Your task to perform on an android device: Search for "acer predator" on bestbuy.com, select the first entry, add it to the cart, then select checkout. Image 0: 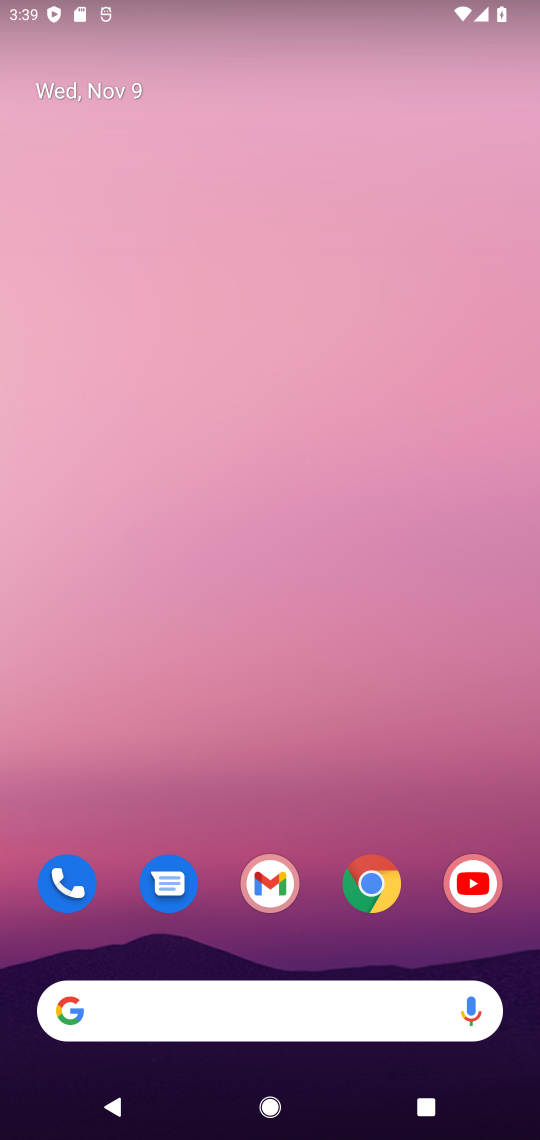
Step 0: click (356, 888)
Your task to perform on an android device: Search for "acer predator" on bestbuy.com, select the first entry, add it to the cart, then select checkout. Image 1: 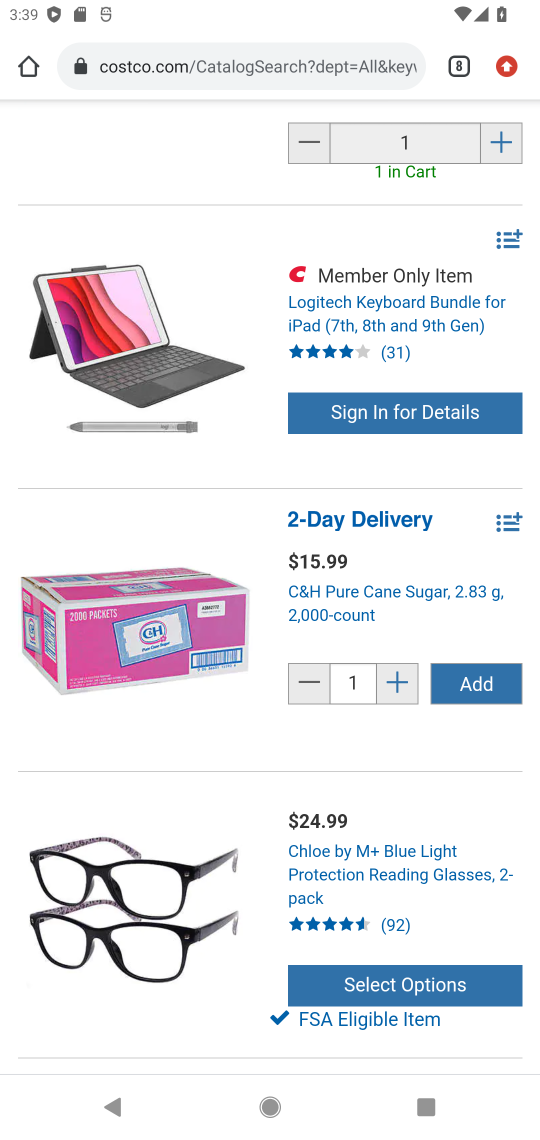
Step 1: press home button
Your task to perform on an android device: Search for "acer predator" on bestbuy.com, select the first entry, add it to the cart, then select checkout. Image 2: 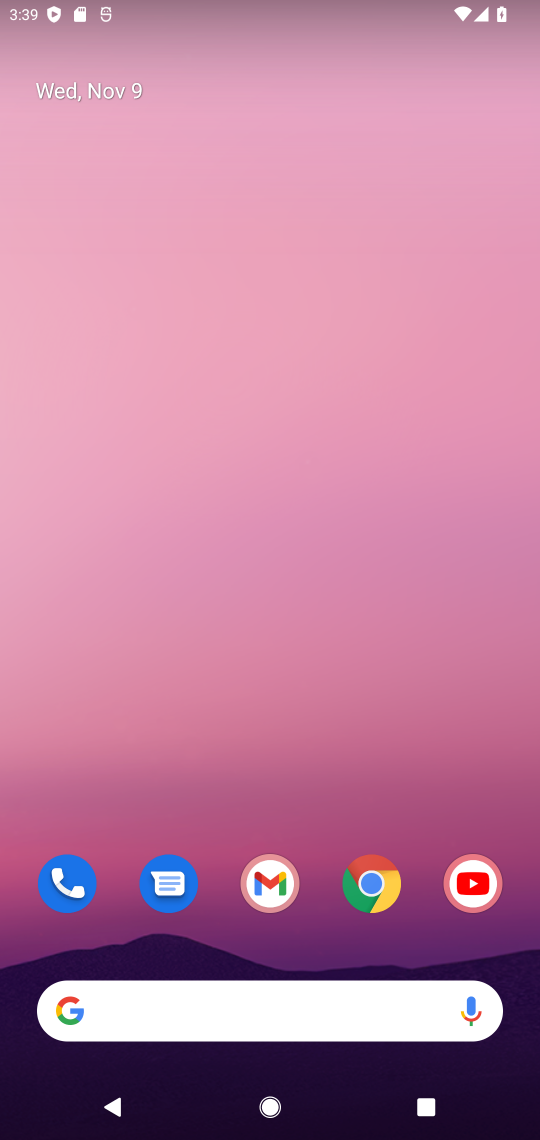
Step 2: click (360, 875)
Your task to perform on an android device: Search for "acer predator" on bestbuy.com, select the first entry, add it to the cart, then select checkout. Image 3: 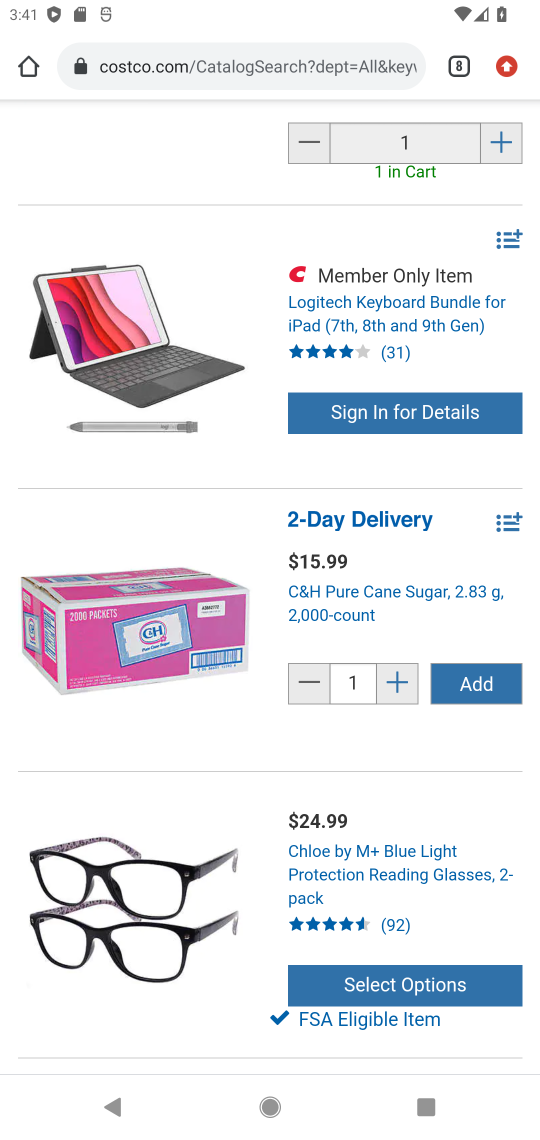
Step 3: click (456, 63)
Your task to perform on an android device: Search for "acer predator" on bestbuy.com, select the first entry, add it to the cart, then select checkout. Image 4: 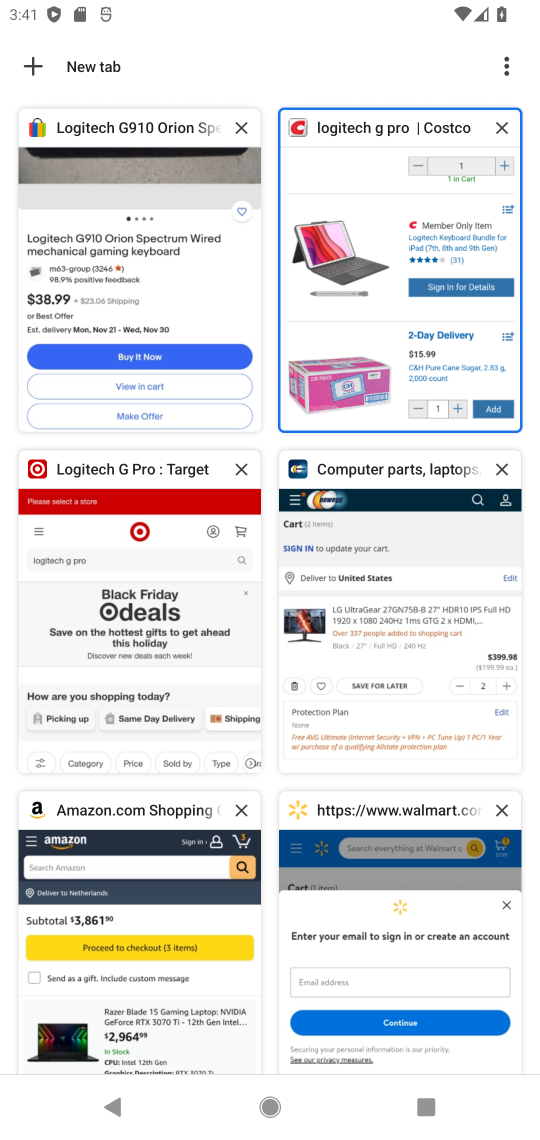
Step 4: click (34, 78)
Your task to perform on an android device: Search for "acer predator" on bestbuy.com, select the first entry, add it to the cart, then select checkout. Image 5: 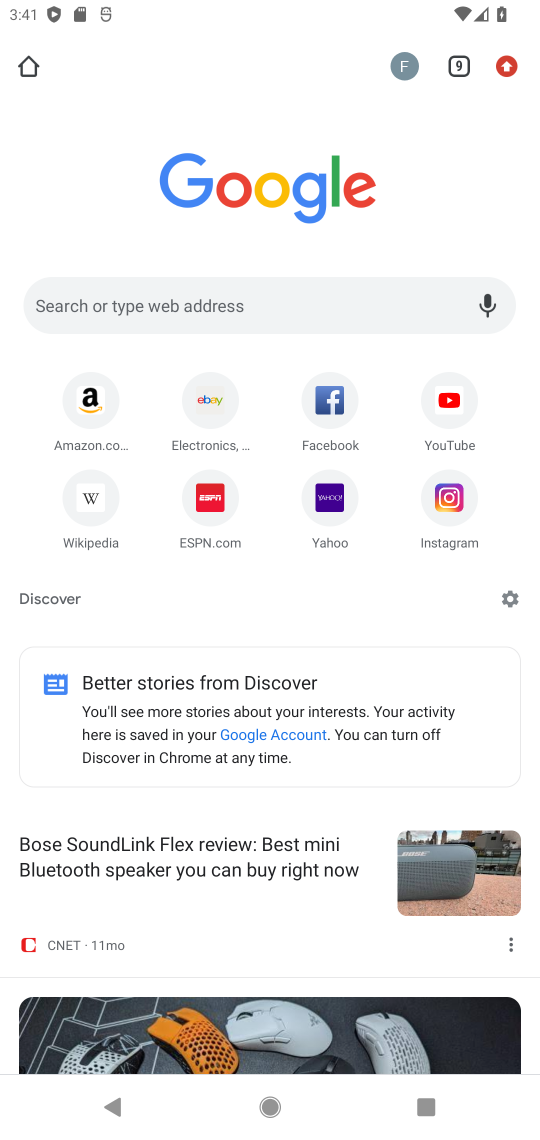
Step 5: click (194, 308)
Your task to perform on an android device: Search for "acer predator" on bestbuy.com, select the first entry, add it to the cart, then select checkout. Image 6: 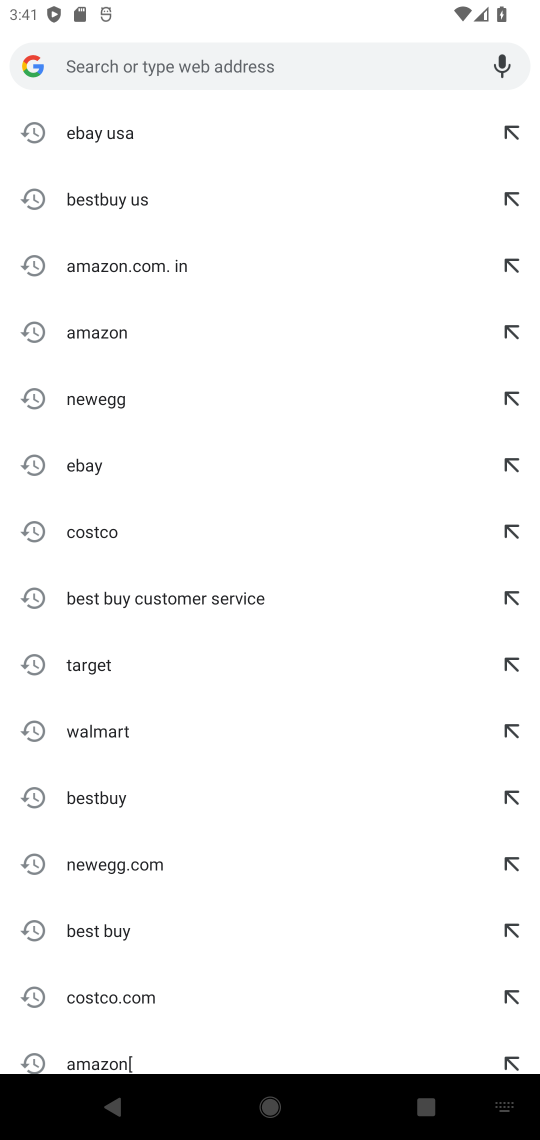
Step 6: click (100, 798)
Your task to perform on an android device: Search for "acer predator" on bestbuy.com, select the first entry, add it to the cart, then select checkout. Image 7: 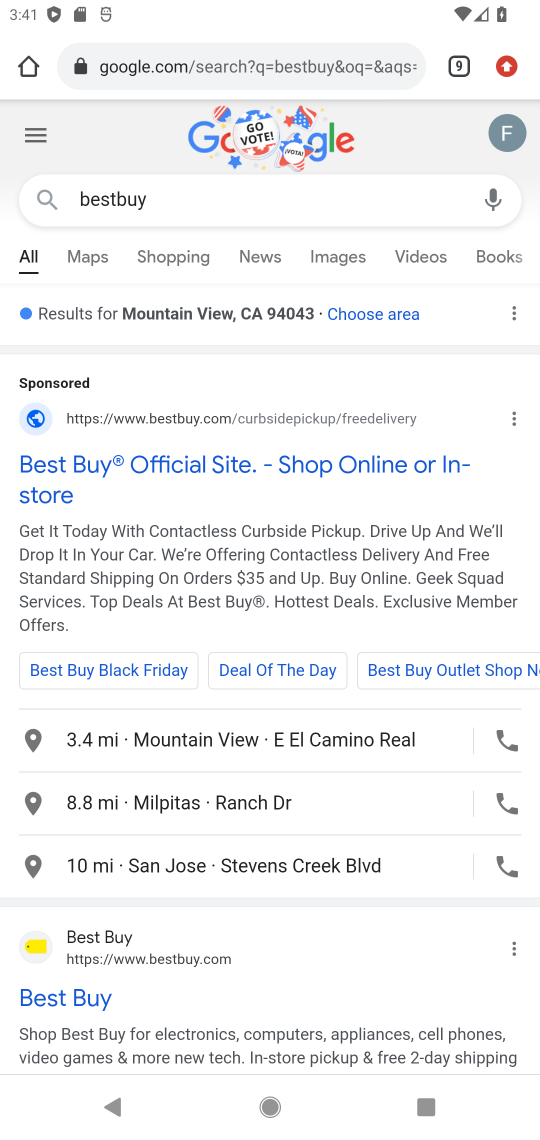
Step 7: drag from (362, 1039) to (332, 297)
Your task to perform on an android device: Search for "acer predator" on bestbuy.com, select the first entry, add it to the cart, then select checkout. Image 8: 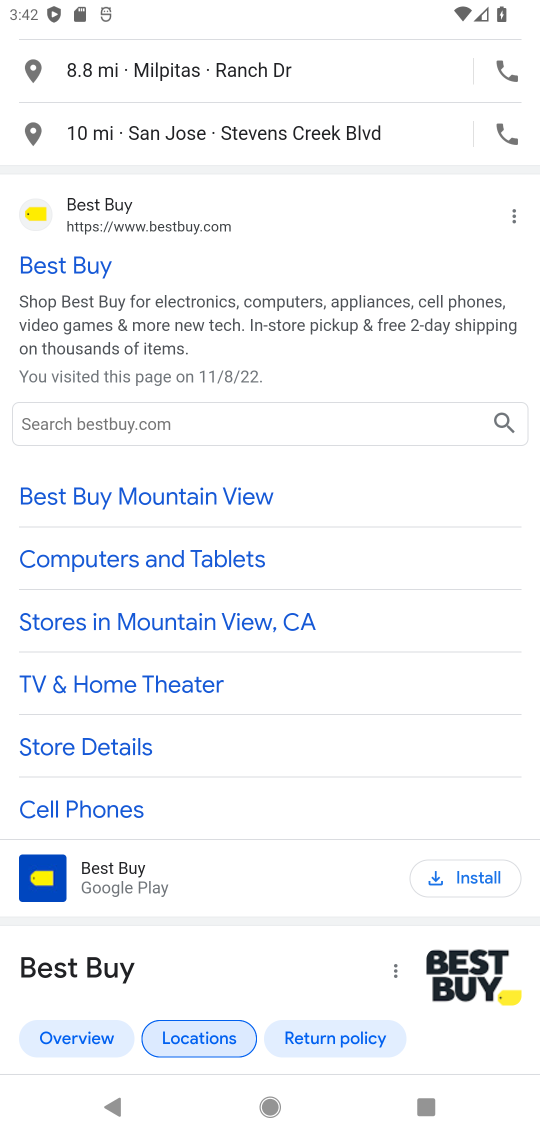
Step 8: click (75, 419)
Your task to perform on an android device: Search for "acer predator" on bestbuy.com, select the first entry, add it to the cart, then select checkout. Image 9: 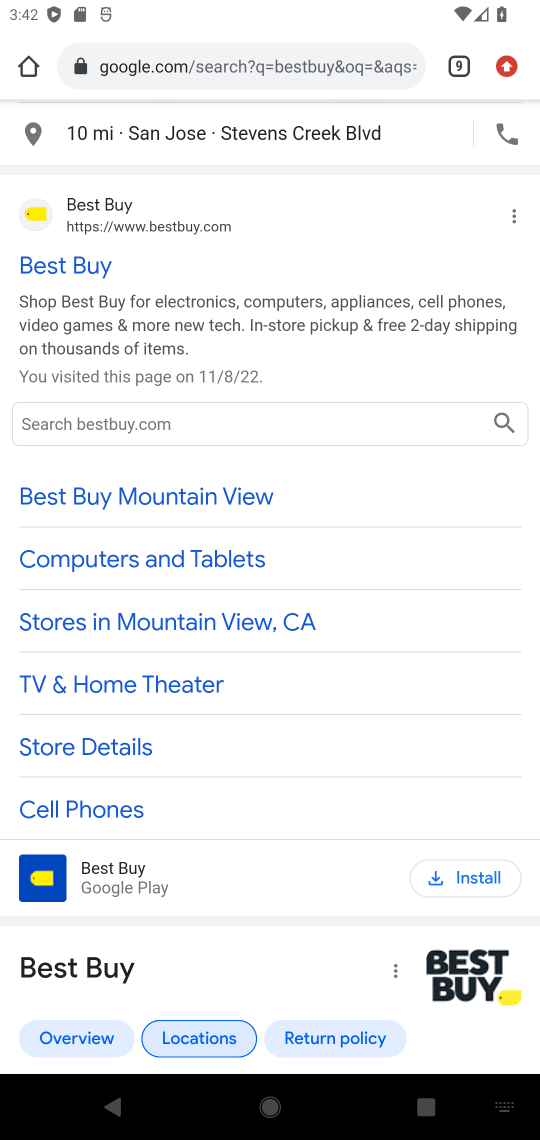
Step 9: type "acer predator"
Your task to perform on an android device: Search for "acer predator" on bestbuy.com, select the first entry, add it to the cart, then select checkout. Image 10: 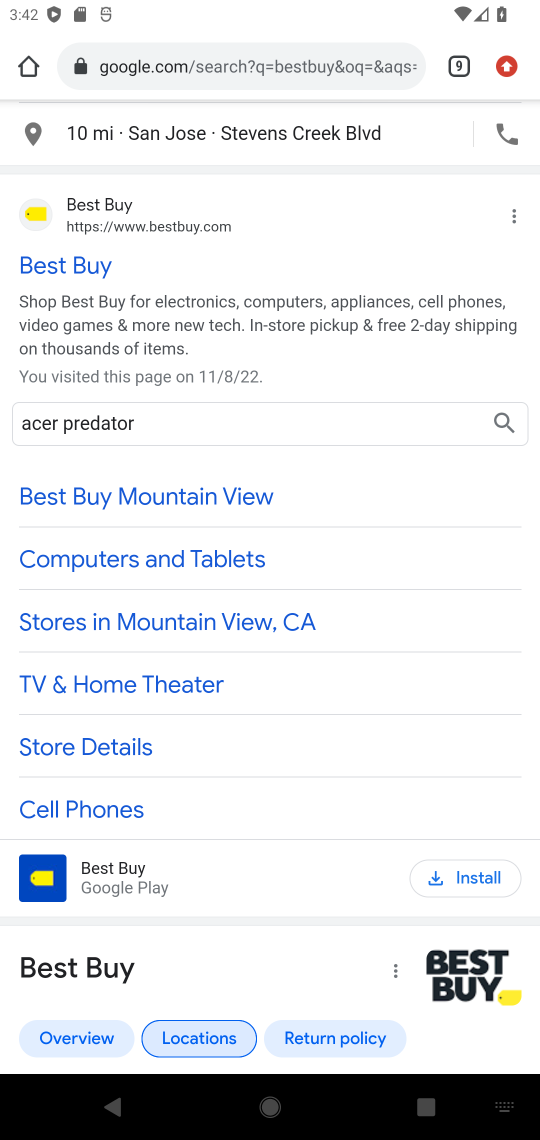
Step 10: click (505, 412)
Your task to perform on an android device: Search for "acer predator" on bestbuy.com, select the first entry, add it to the cart, then select checkout. Image 11: 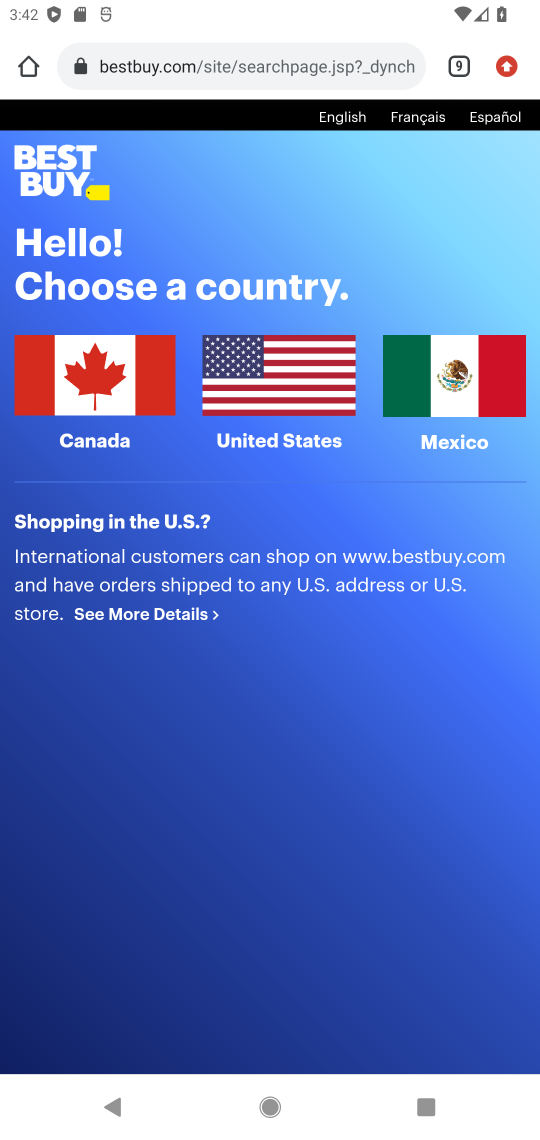
Step 11: click (260, 389)
Your task to perform on an android device: Search for "acer predator" on bestbuy.com, select the first entry, add it to the cart, then select checkout. Image 12: 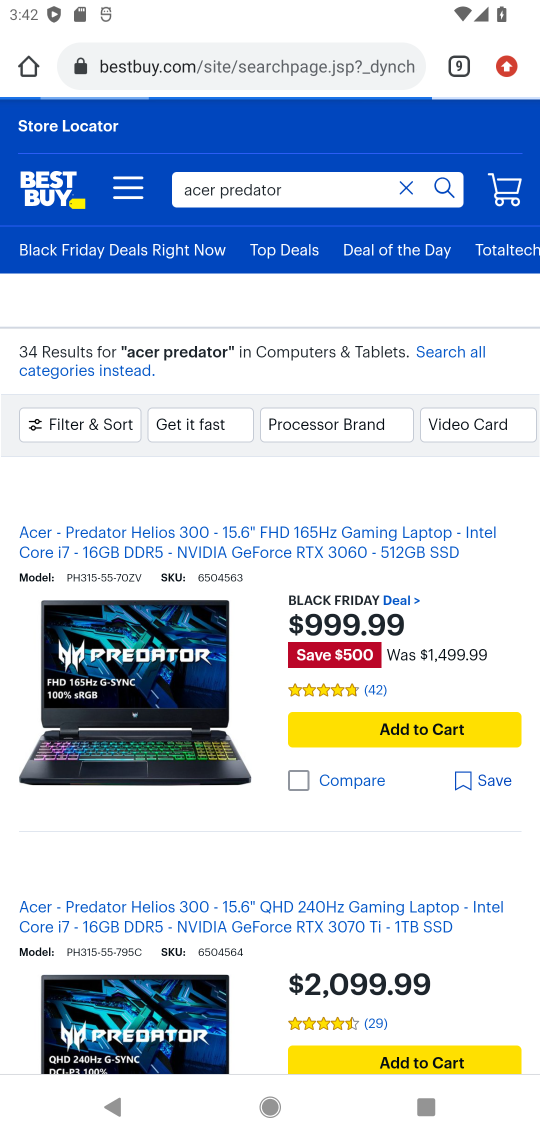
Step 12: click (417, 696)
Your task to perform on an android device: Search for "acer predator" on bestbuy.com, select the first entry, add it to the cart, then select checkout. Image 13: 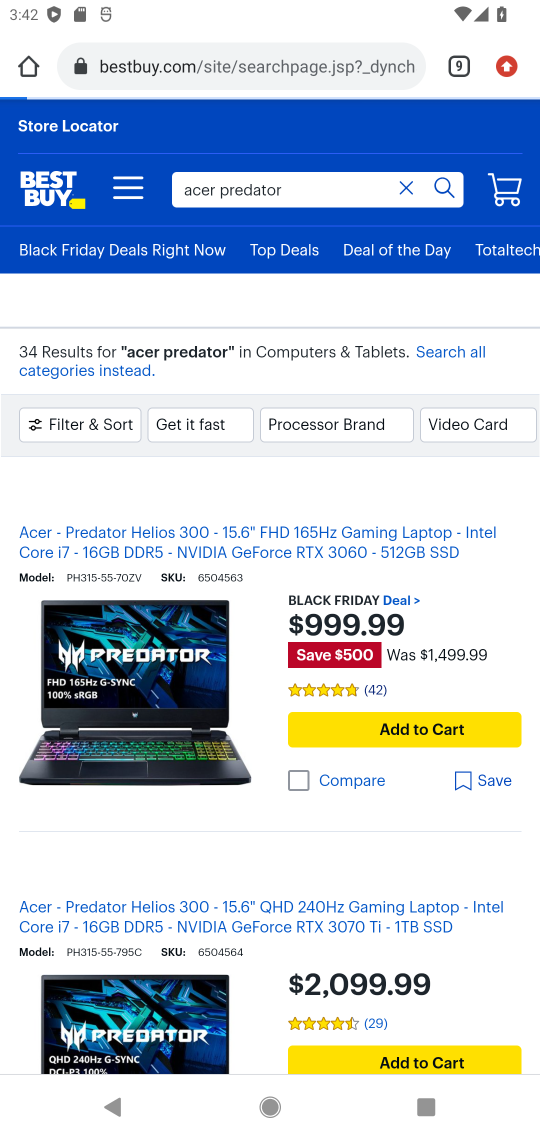
Step 13: click (412, 761)
Your task to perform on an android device: Search for "acer predator" on bestbuy.com, select the first entry, add it to the cart, then select checkout. Image 14: 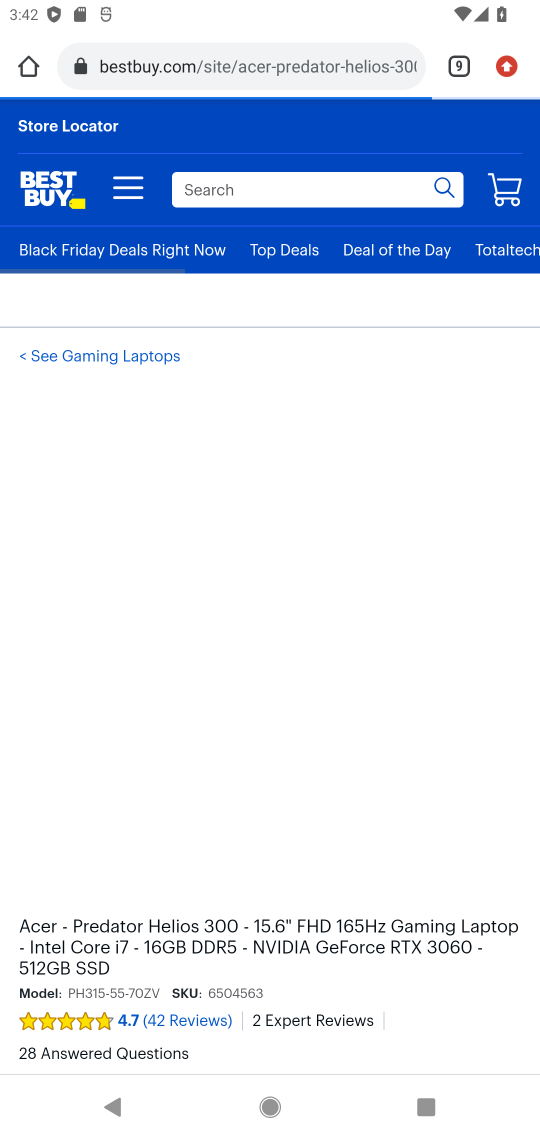
Step 14: click (426, 732)
Your task to perform on an android device: Search for "acer predator" on bestbuy.com, select the first entry, add it to the cart, then select checkout. Image 15: 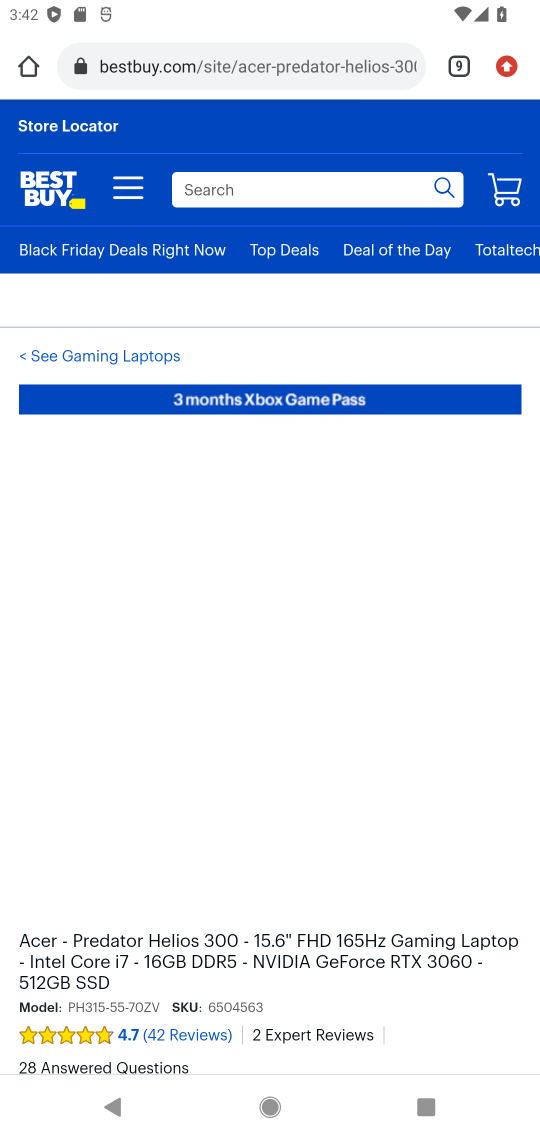
Step 15: drag from (333, 972) to (415, 423)
Your task to perform on an android device: Search for "acer predator" on bestbuy.com, select the first entry, add it to the cart, then select checkout. Image 16: 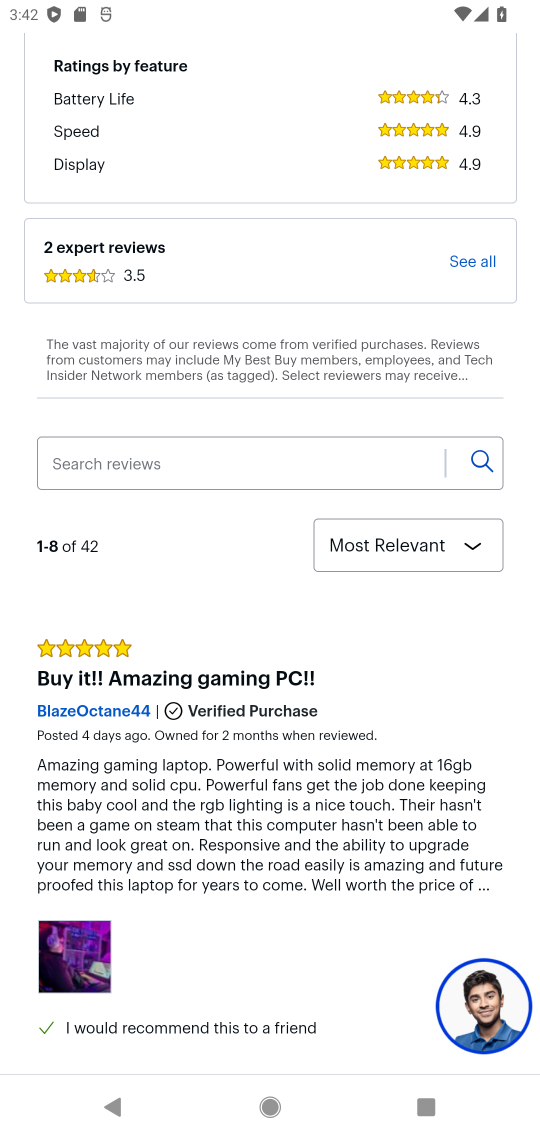
Step 16: drag from (328, 224) to (253, 698)
Your task to perform on an android device: Search for "acer predator" on bestbuy.com, select the first entry, add it to the cart, then select checkout. Image 17: 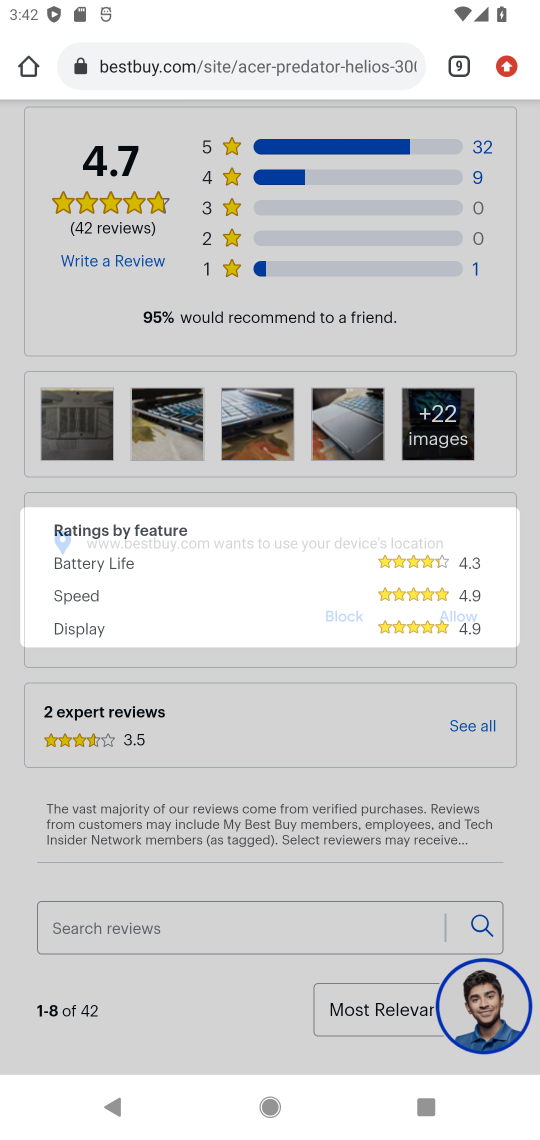
Step 17: drag from (370, 350) to (282, 760)
Your task to perform on an android device: Search for "acer predator" on bestbuy.com, select the first entry, add it to the cart, then select checkout. Image 18: 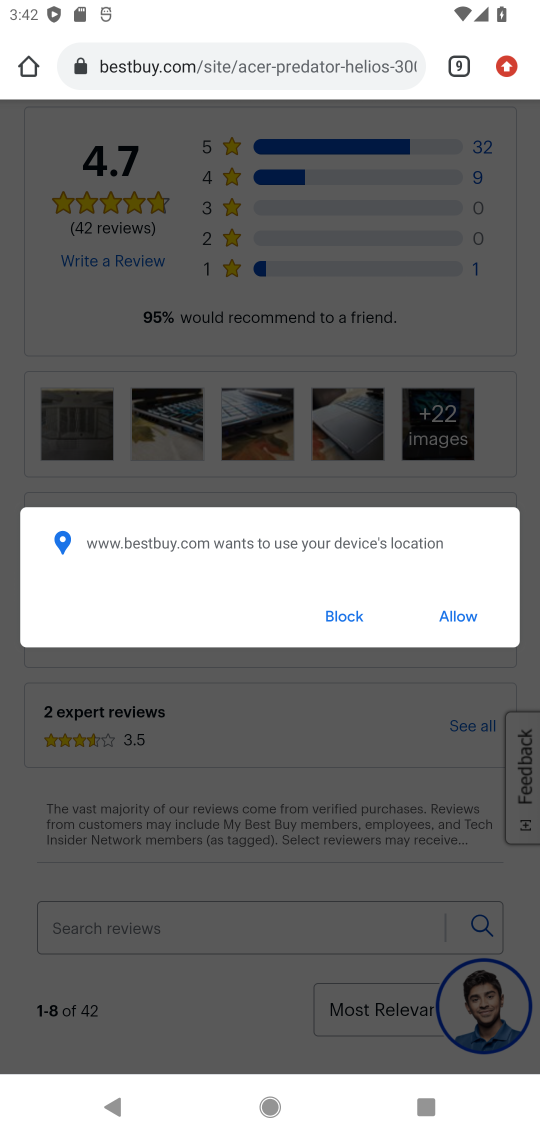
Step 18: click (340, 622)
Your task to perform on an android device: Search for "acer predator" on bestbuy.com, select the first entry, add it to the cart, then select checkout. Image 19: 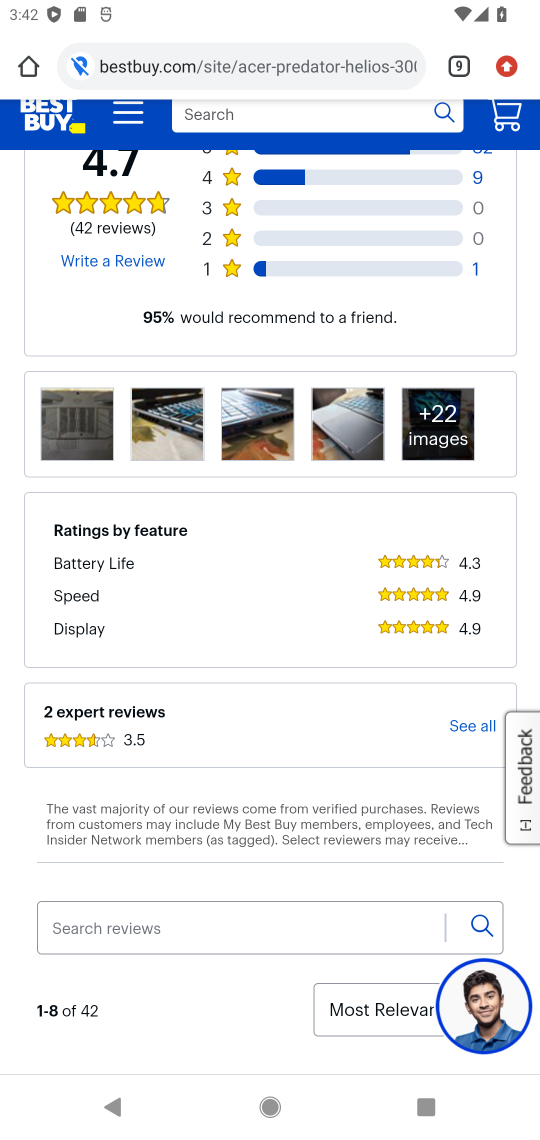
Step 19: press back button
Your task to perform on an android device: Search for "acer predator" on bestbuy.com, select the first entry, add it to the cart, then select checkout. Image 20: 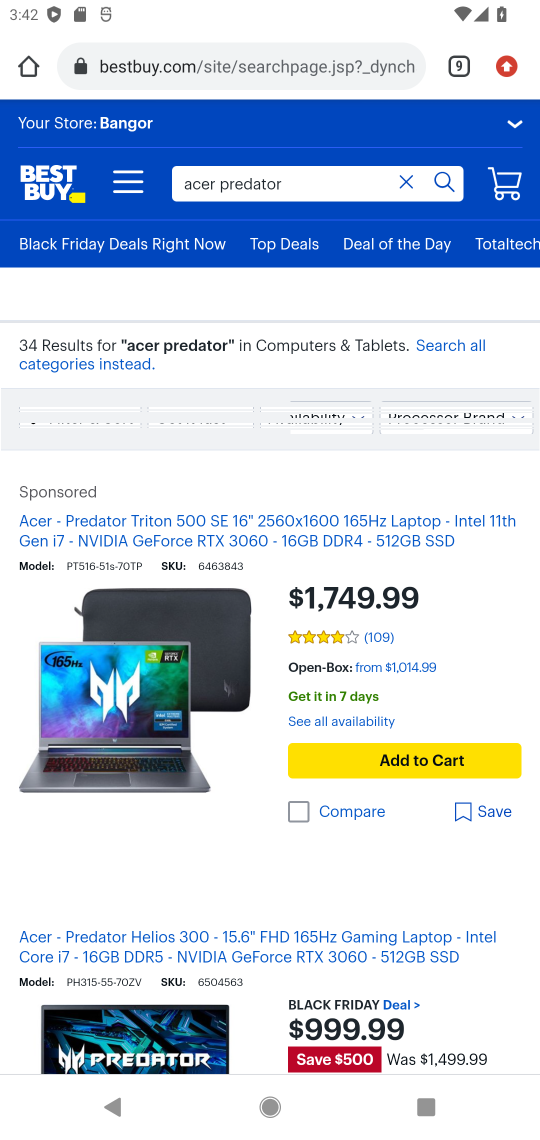
Step 20: click (377, 771)
Your task to perform on an android device: Search for "acer predator" on bestbuy.com, select the first entry, add it to the cart, then select checkout. Image 21: 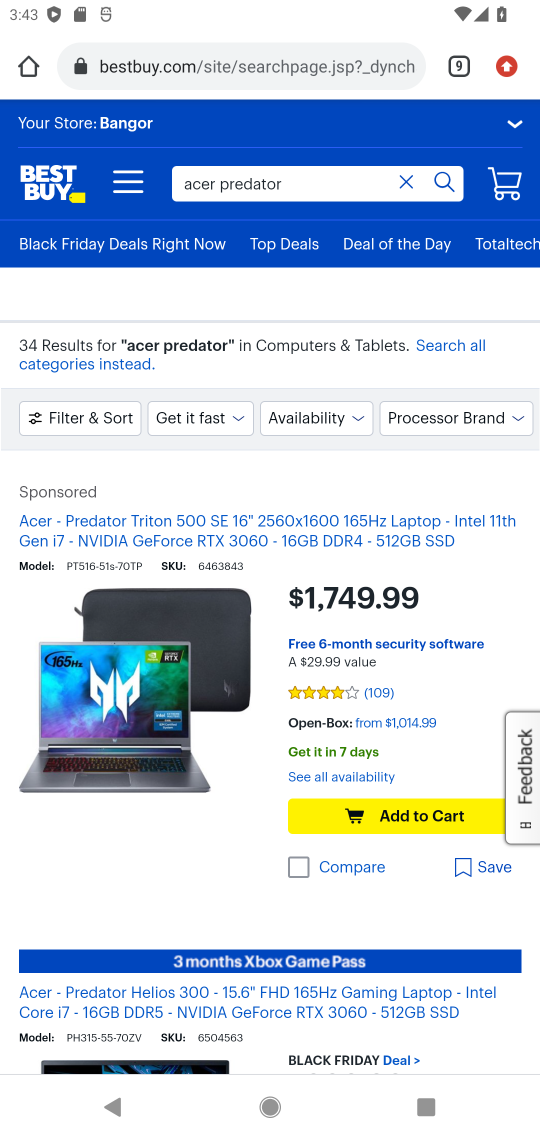
Step 21: click (381, 806)
Your task to perform on an android device: Search for "acer predator" on bestbuy.com, select the first entry, add it to the cart, then select checkout. Image 22: 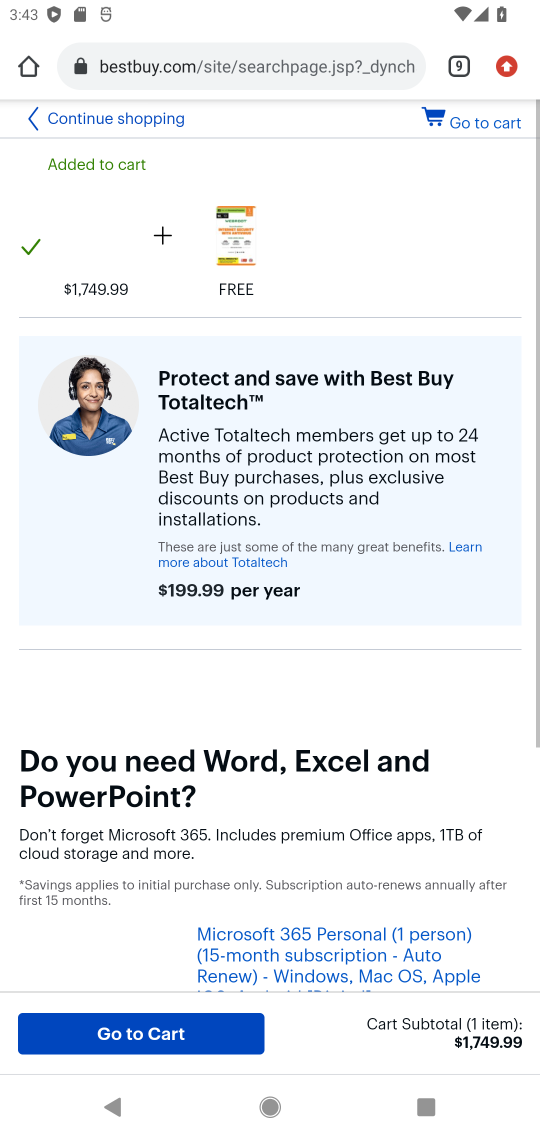
Step 22: click (161, 1033)
Your task to perform on an android device: Search for "acer predator" on bestbuy.com, select the first entry, add it to the cart, then select checkout. Image 23: 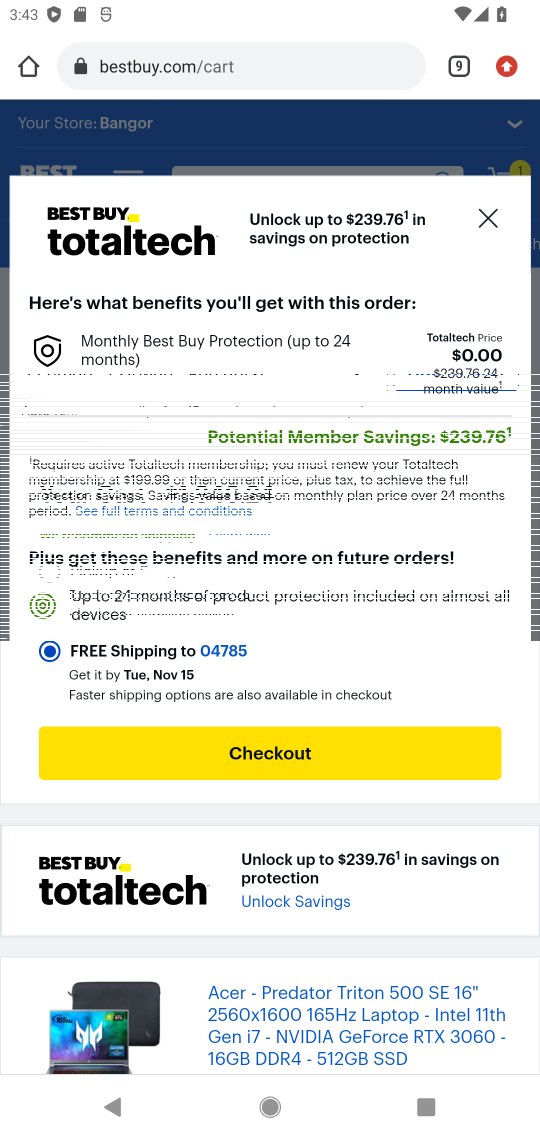
Step 23: click (491, 218)
Your task to perform on an android device: Search for "acer predator" on bestbuy.com, select the first entry, add it to the cart, then select checkout. Image 24: 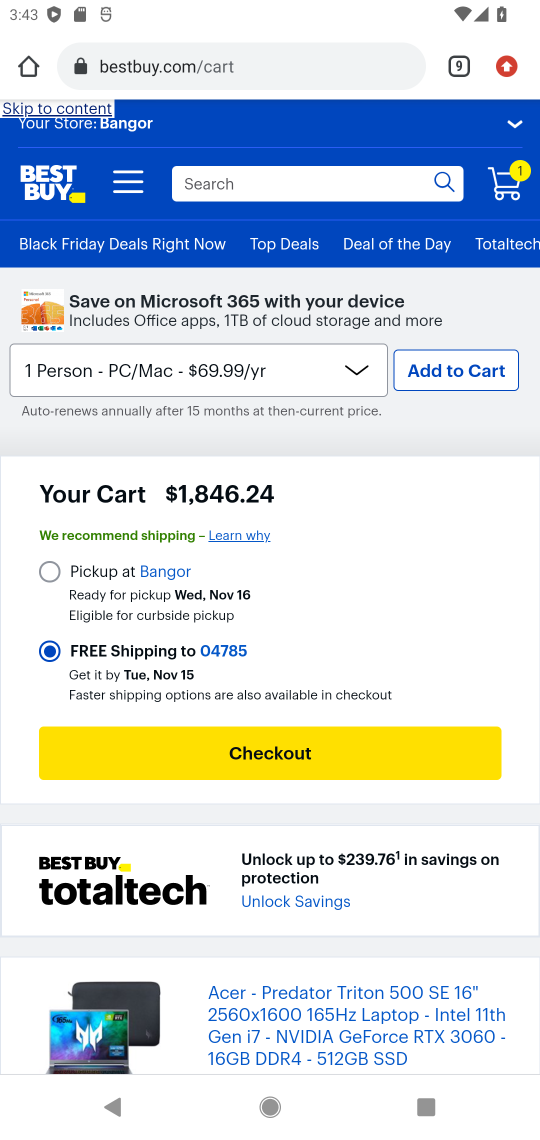
Step 24: click (267, 745)
Your task to perform on an android device: Search for "acer predator" on bestbuy.com, select the first entry, add it to the cart, then select checkout. Image 25: 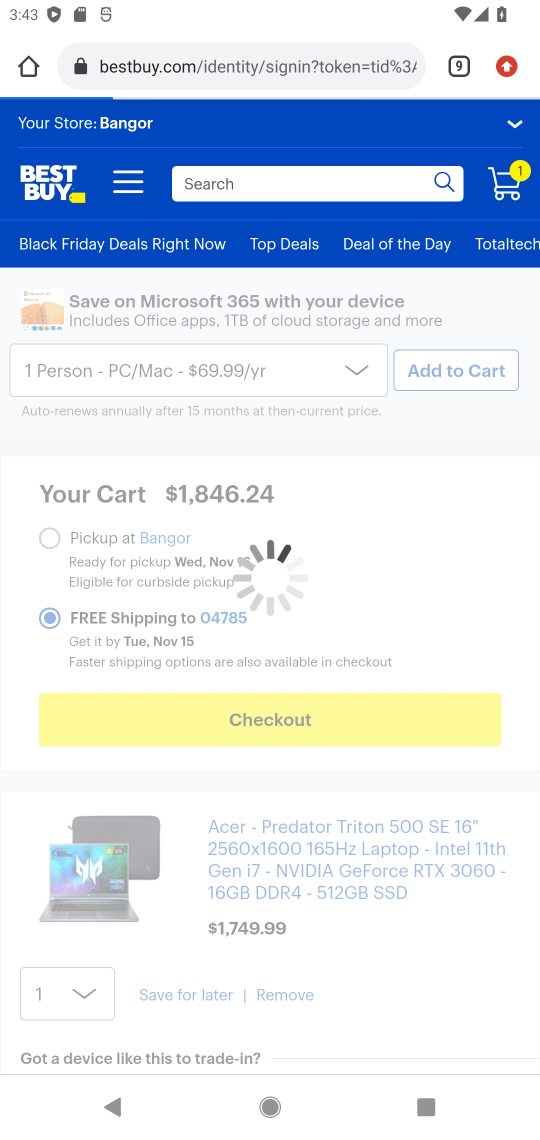
Step 25: task complete